Your task to perform on an android device: Do I have any events this weekend? Image 0: 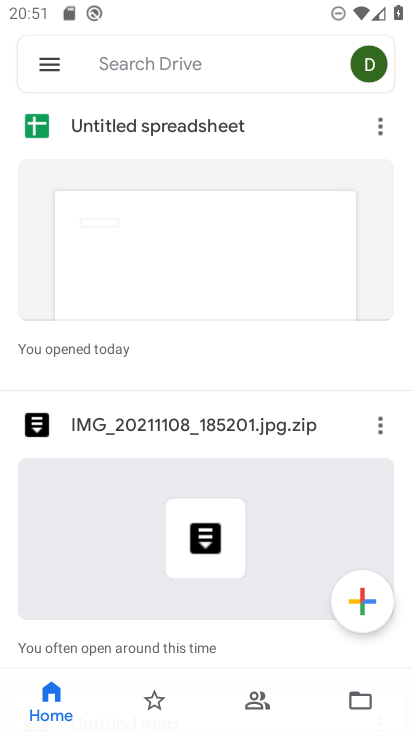
Step 0: press home button
Your task to perform on an android device: Do I have any events this weekend? Image 1: 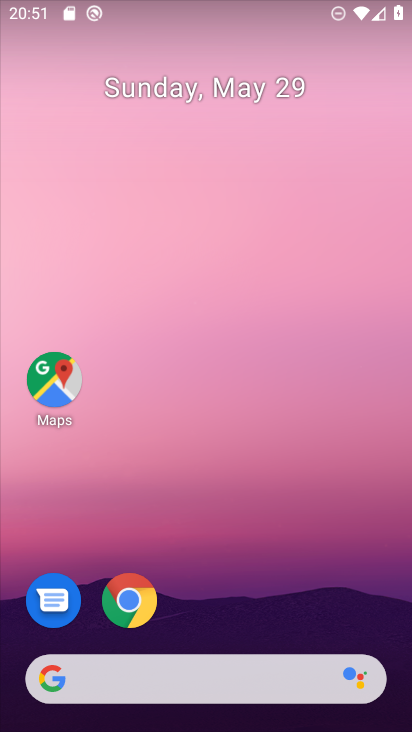
Step 1: drag from (338, 572) to (365, 5)
Your task to perform on an android device: Do I have any events this weekend? Image 2: 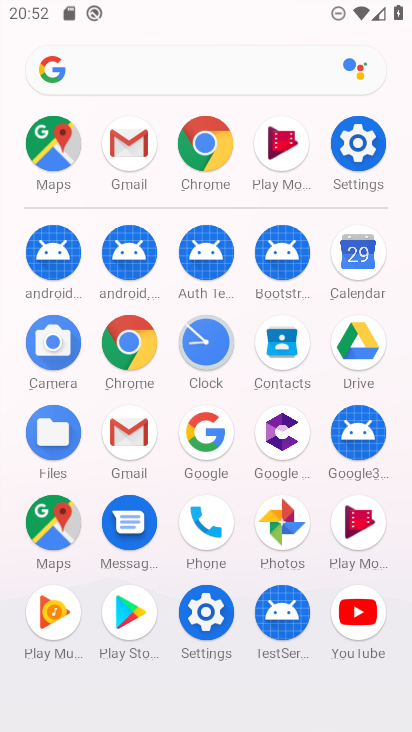
Step 2: click (365, 270)
Your task to perform on an android device: Do I have any events this weekend? Image 3: 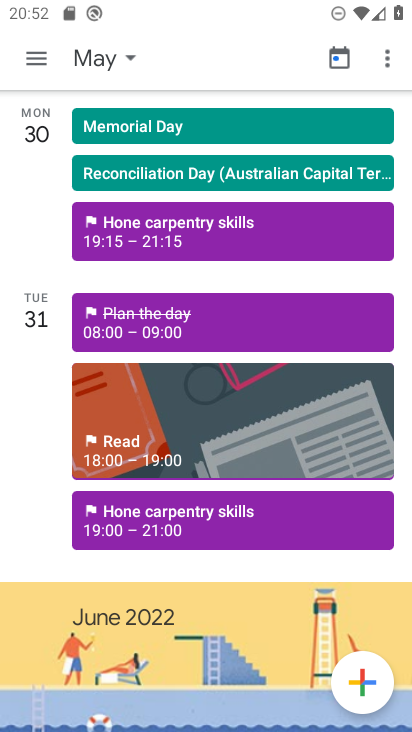
Step 3: task complete